Your task to perform on an android device: Check the weather Image 0: 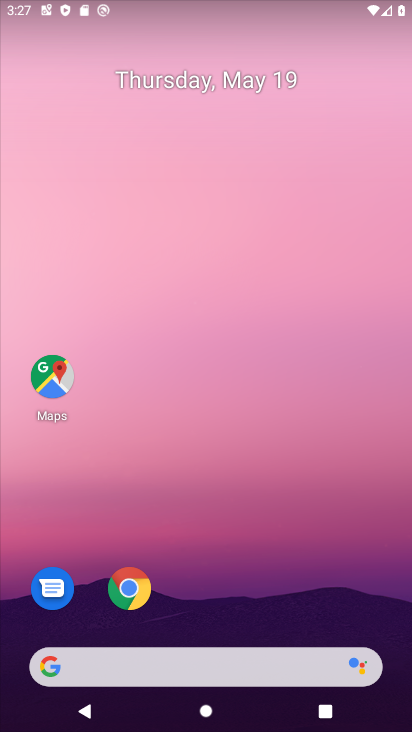
Step 0: click (163, 669)
Your task to perform on an android device: Check the weather Image 1: 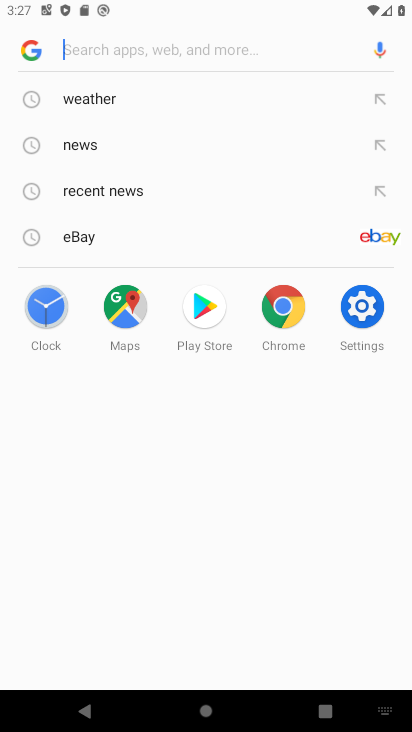
Step 1: click (136, 98)
Your task to perform on an android device: Check the weather Image 2: 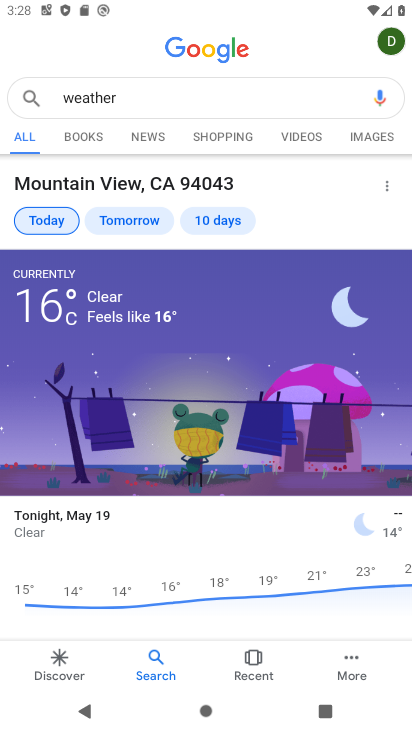
Step 2: task complete